Your task to perform on an android device: turn on showing notifications on the lock screen Image 0: 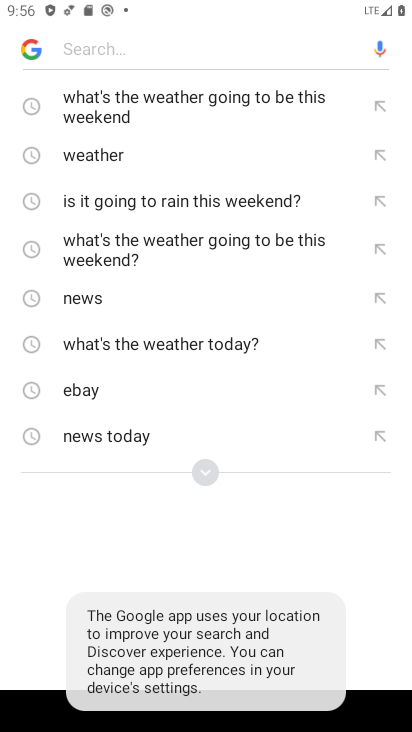
Step 0: press home button
Your task to perform on an android device: turn on showing notifications on the lock screen Image 1: 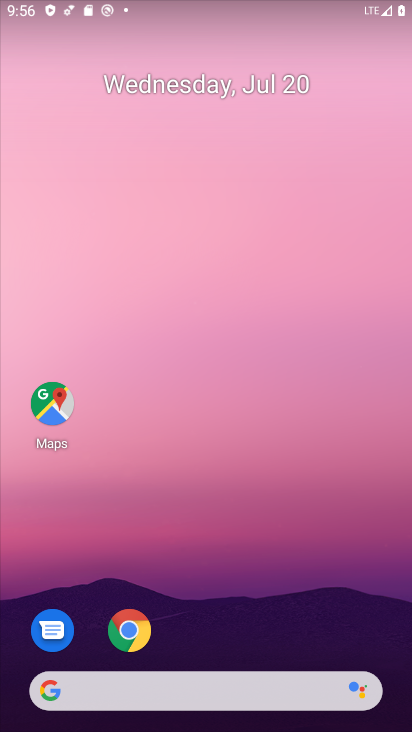
Step 1: drag from (277, 588) to (276, 91)
Your task to perform on an android device: turn on showing notifications on the lock screen Image 2: 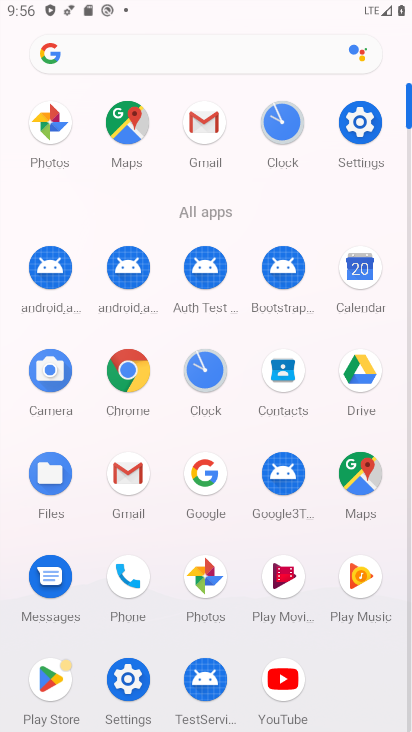
Step 2: click (369, 111)
Your task to perform on an android device: turn on showing notifications on the lock screen Image 3: 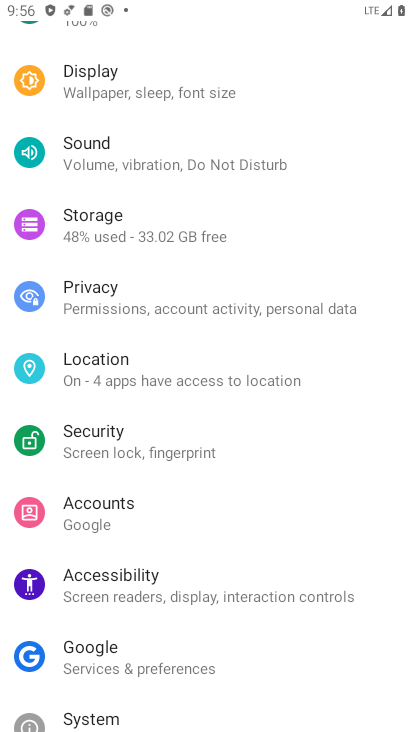
Step 3: drag from (147, 315) to (162, 604)
Your task to perform on an android device: turn on showing notifications on the lock screen Image 4: 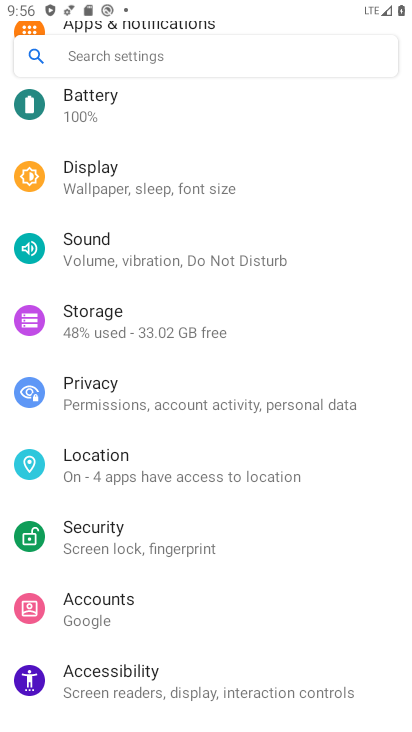
Step 4: drag from (236, 291) to (294, 619)
Your task to perform on an android device: turn on showing notifications on the lock screen Image 5: 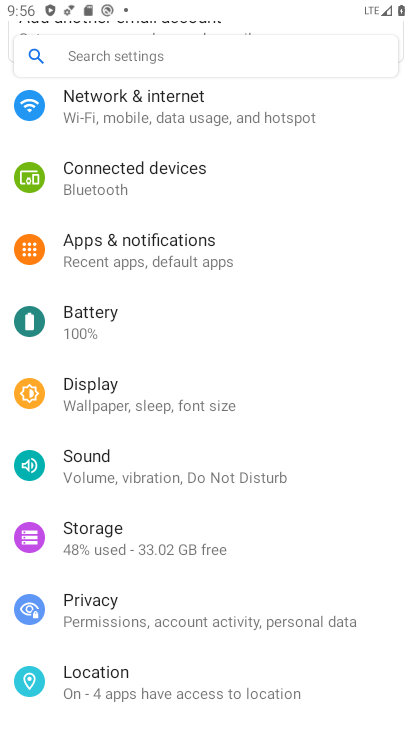
Step 5: click (197, 256)
Your task to perform on an android device: turn on showing notifications on the lock screen Image 6: 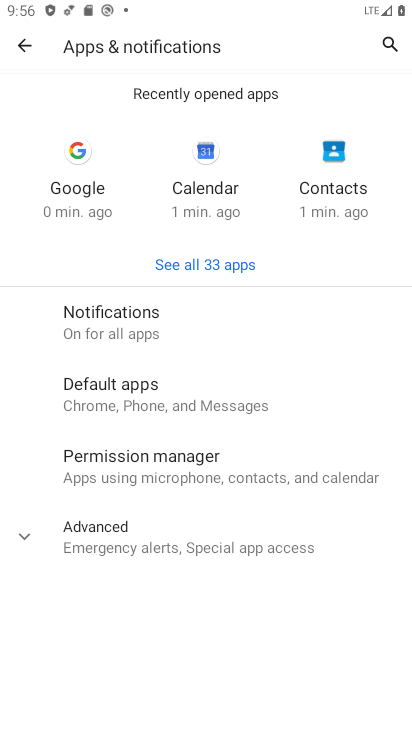
Step 6: click (82, 315)
Your task to perform on an android device: turn on showing notifications on the lock screen Image 7: 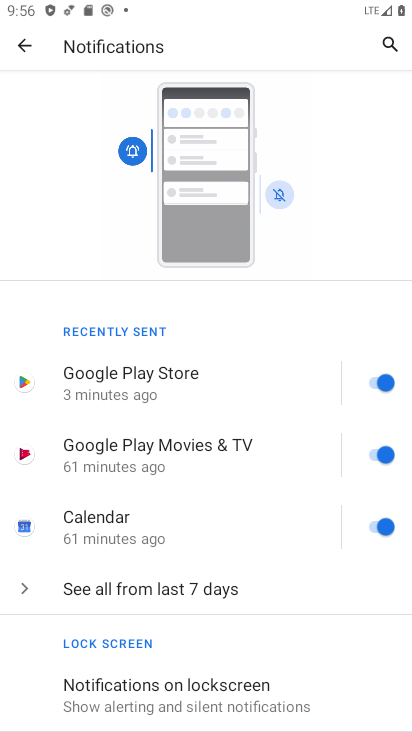
Step 7: click (139, 712)
Your task to perform on an android device: turn on showing notifications on the lock screen Image 8: 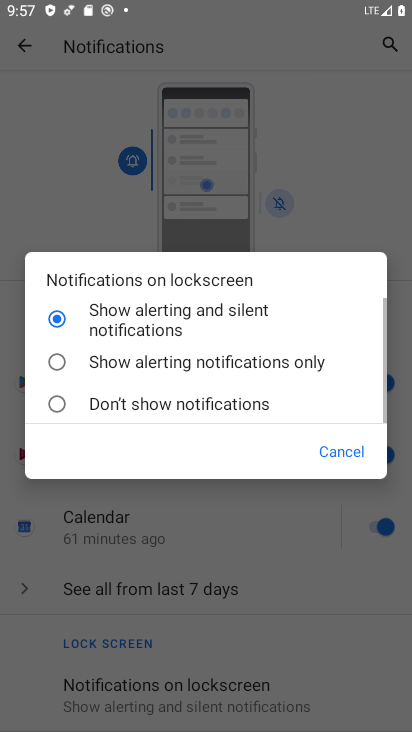
Step 8: click (223, 321)
Your task to perform on an android device: turn on showing notifications on the lock screen Image 9: 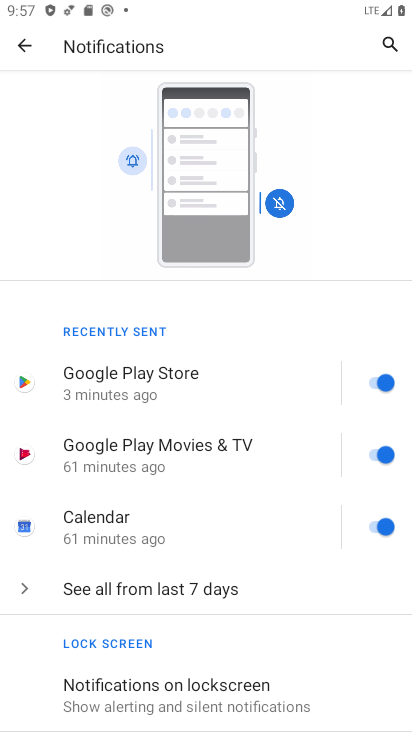
Step 9: task complete